Your task to perform on an android device: read, delete, or share a saved page in the chrome app Image 0: 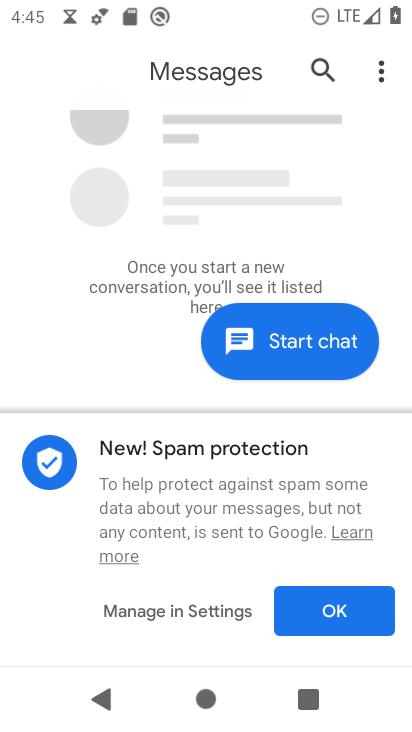
Step 0: press home button
Your task to perform on an android device: read, delete, or share a saved page in the chrome app Image 1: 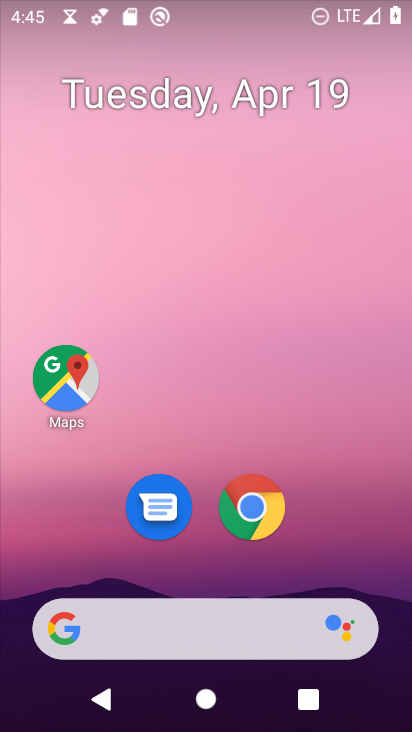
Step 1: click (231, 510)
Your task to perform on an android device: read, delete, or share a saved page in the chrome app Image 2: 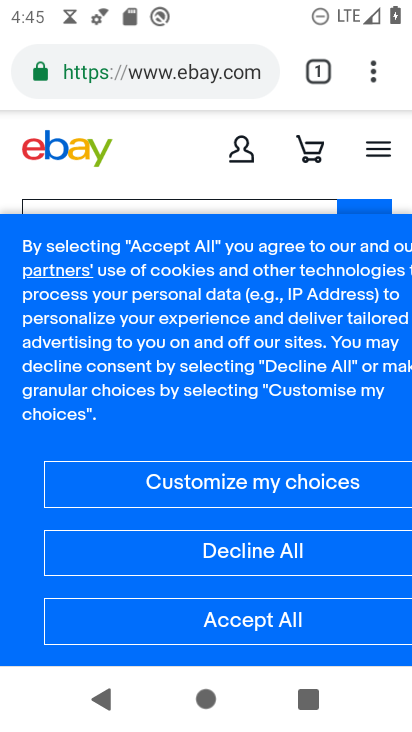
Step 2: click (367, 66)
Your task to perform on an android device: read, delete, or share a saved page in the chrome app Image 3: 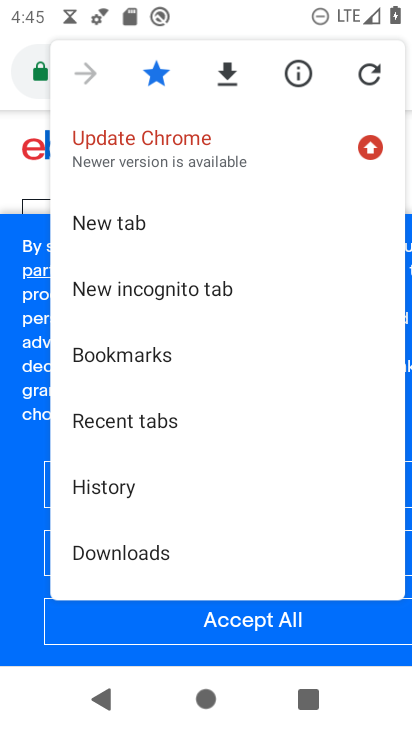
Step 3: click (199, 546)
Your task to perform on an android device: read, delete, or share a saved page in the chrome app Image 4: 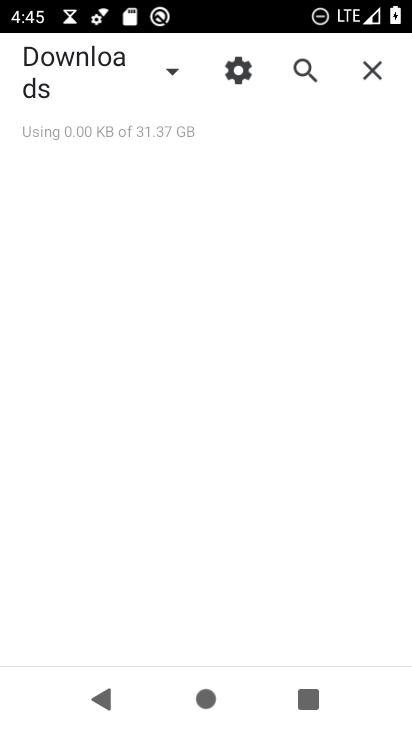
Step 4: click (175, 76)
Your task to perform on an android device: read, delete, or share a saved page in the chrome app Image 5: 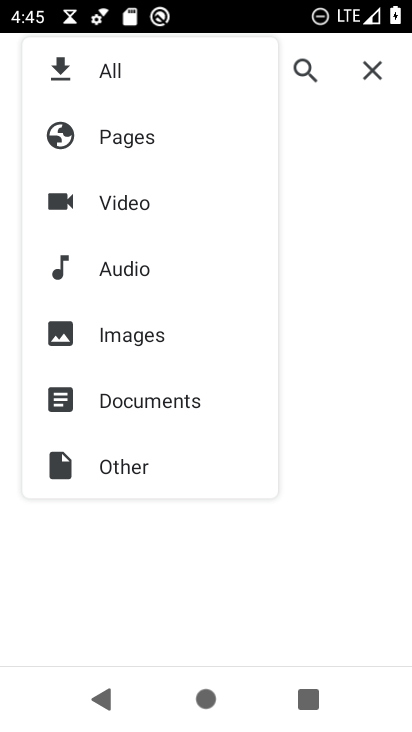
Step 5: click (156, 131)
Your task to perform on an android device: read, delete, or share a saved page in the chrome app Image 6: 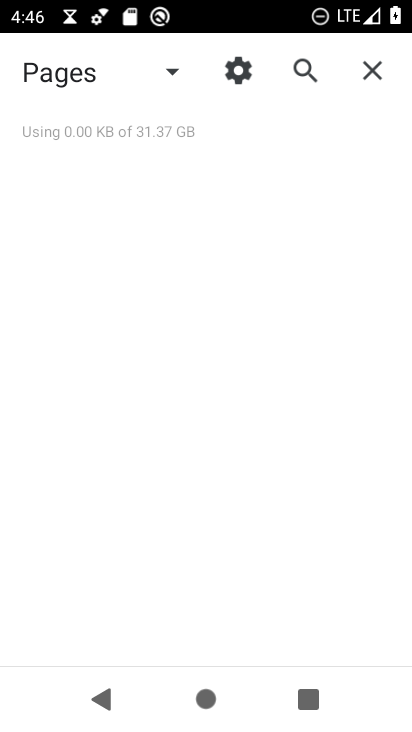
Step 6: task complete